Your task to perform on an android device: turn on sleep mode Image 0: 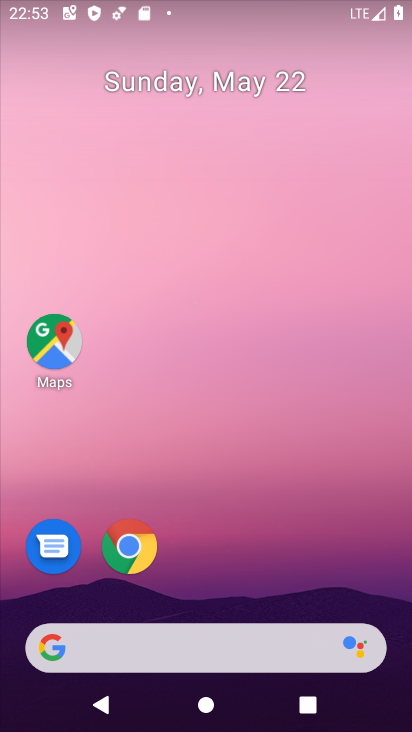
Step 0: click (302, 107)
Your task to perform on an android device: turn on sleep mode Image 1: 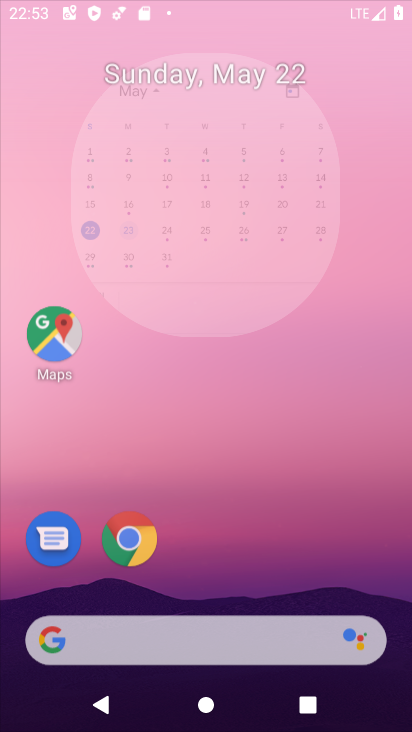
Step 1: drag from (220, 585) to (262, 136)
Your task to perform on an android device: turn on sleep mode Image 2: 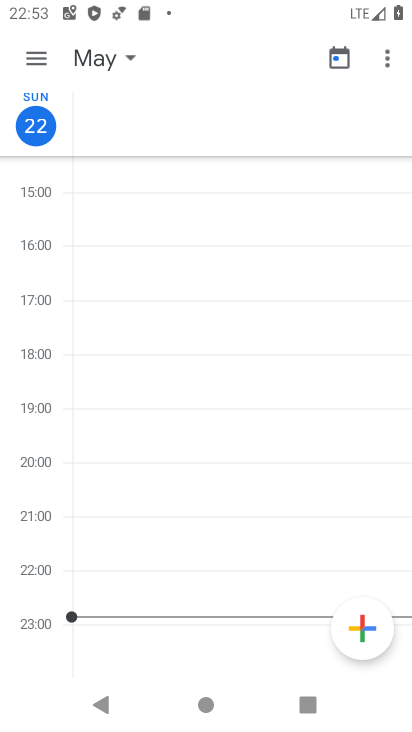
Step 2: press home button
Your task to perform on an android device: turn on sleep mode Image 3: 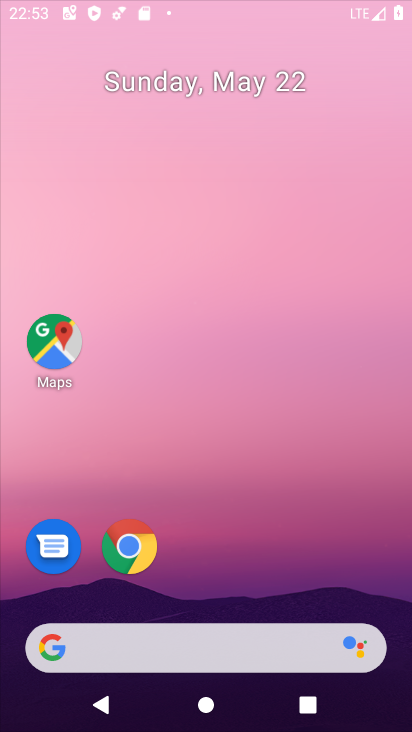
Step 3: drag from (201, 596) to (256, 121)
Your task to perform on an android device: turn on sleep mode Image 4: 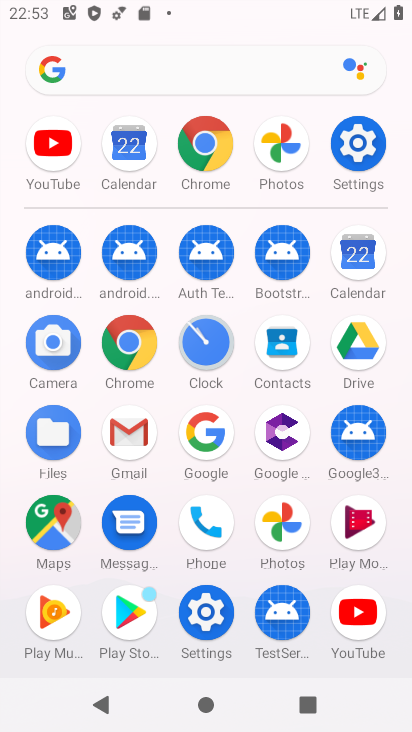
Step 4: click (355, 147)
Your task to perform on an android device: turn on sleep mode Image 5: 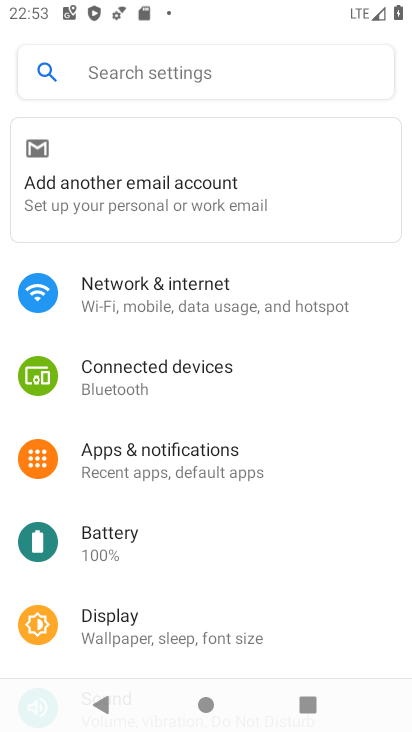
Step 5: drag from (210, 616) to (322, 153)
Your task to perform on an android device: turn on sleep mode Image 6: 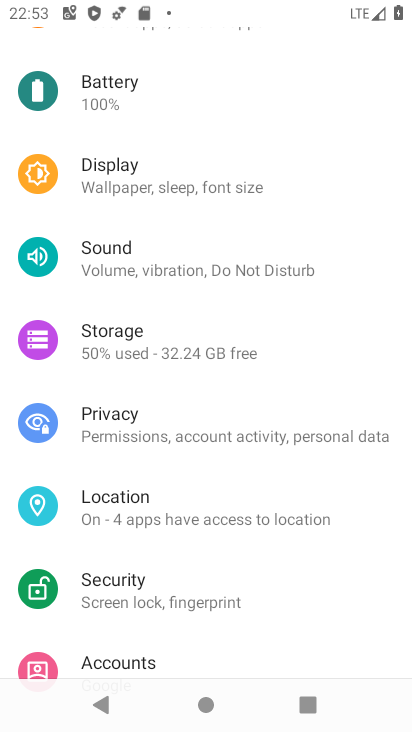
Step 6: drag from (183, 555) to (281, 137)
Your task to perform on an android device: turn on sleep mode Image 7: 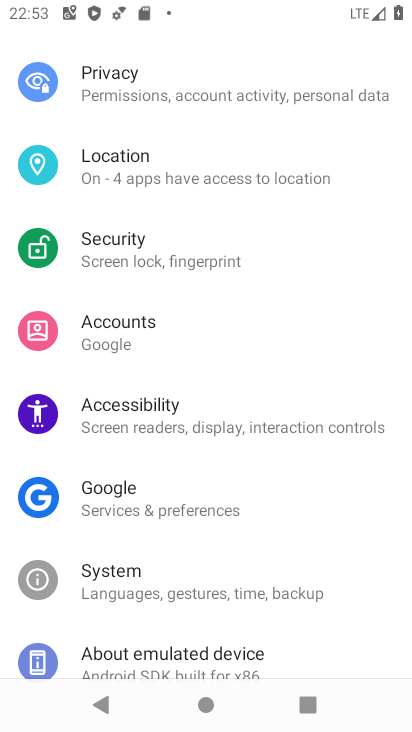
Step 7: drag from (220, 190) to (284, 596)
Your task to perform on an android device: turn on sleep mode Image 8: 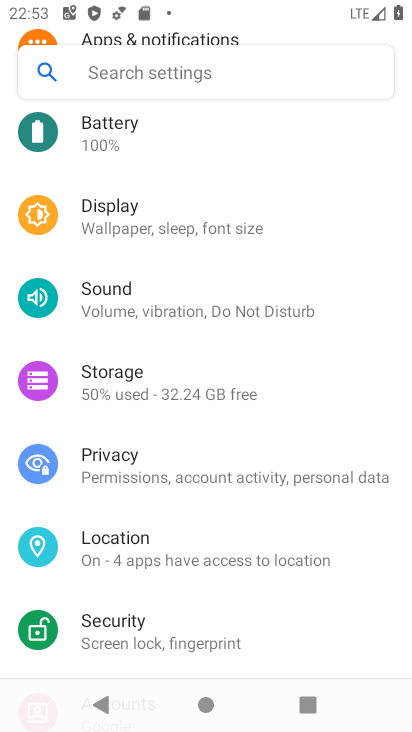
Step 8: click (182, 229)
Your task to perform on an android device: turn on sleep mode Image 9: 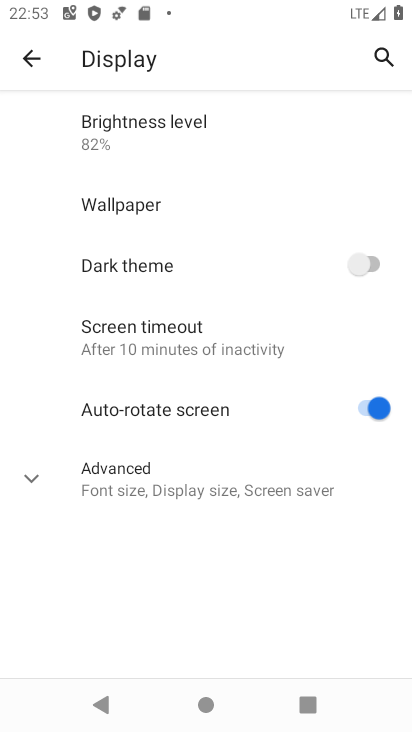
Step 9: click (179, 360)
Your task to perform on an android device: turn on sleep mode Image 10: 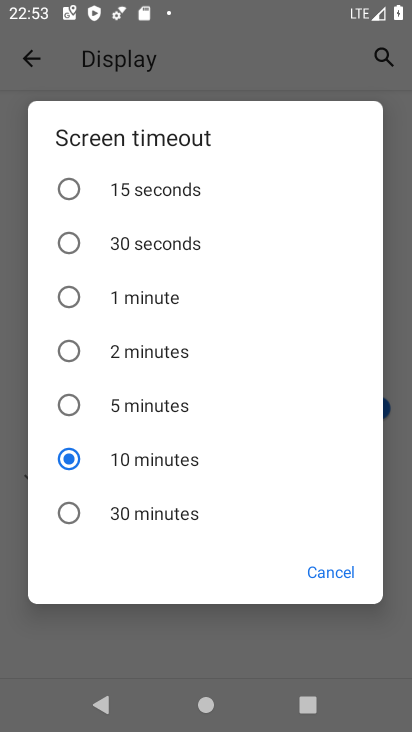
Step 10: task complete